Your task to perform on an android device: clear history in the chrome app Image 0: 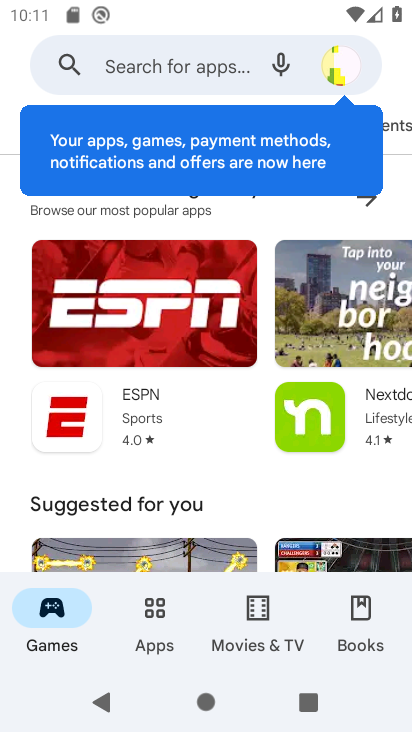
Step 0: press home button
Your task to perform on an android device: clear history in the chrome app Image 1: 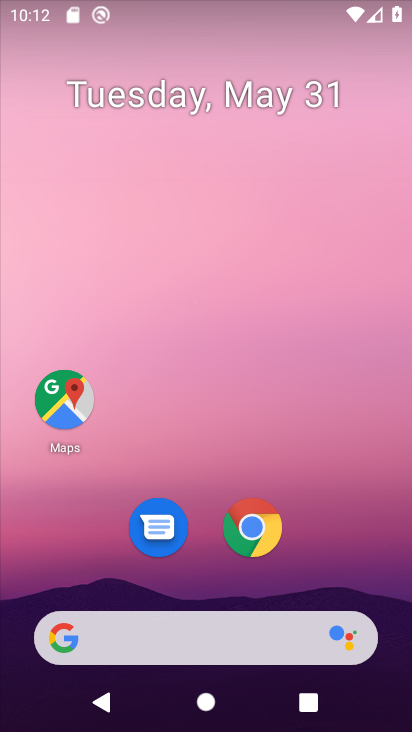
Step 1: click (249, 531)
Your task to perform on an android device: clear history in the chrome app Image 2: 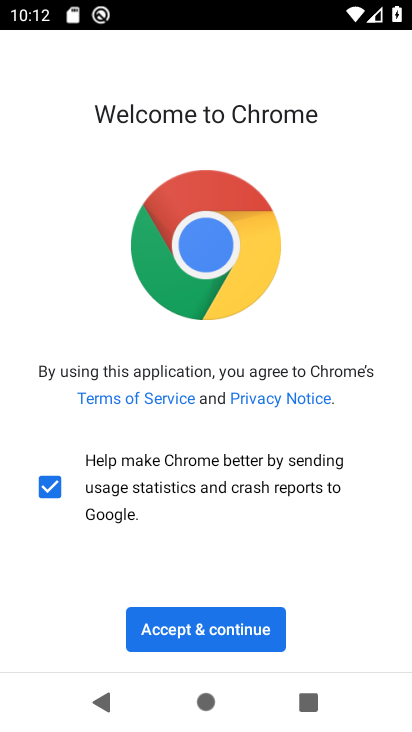
Step 2: click (229, 627)
Your task to perform on an android device: clear history in the chrome app Image 3: 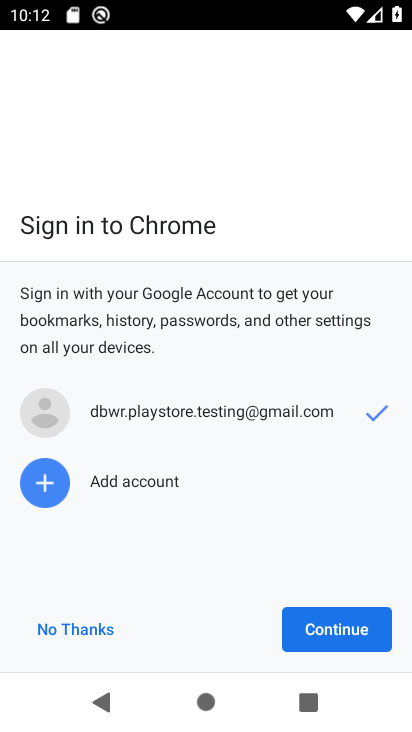
Step 3: click (79, 630)
Your task to perform on an android device: clear history in the chrome app Image 4: 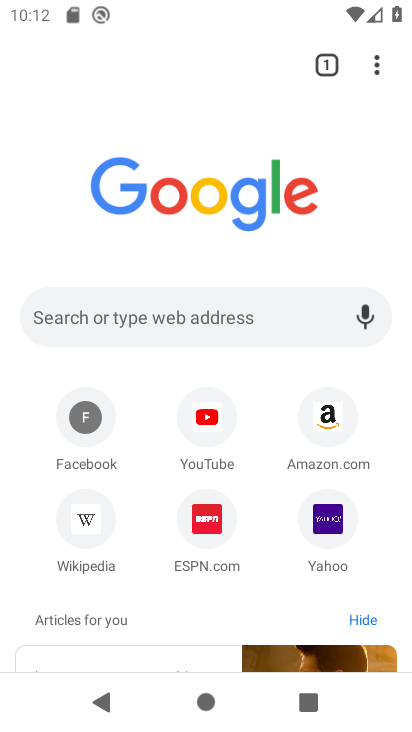
Step 4: click (379, 66)
Your task to perform on an android device: clear history in the chrome app Image 5: 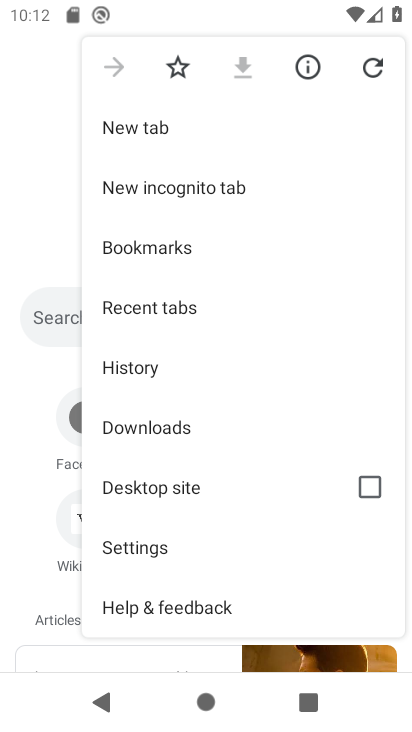
Step 5: click (160, 547)
Your task to perform on an android device: clear history in the chrome app Image 6: 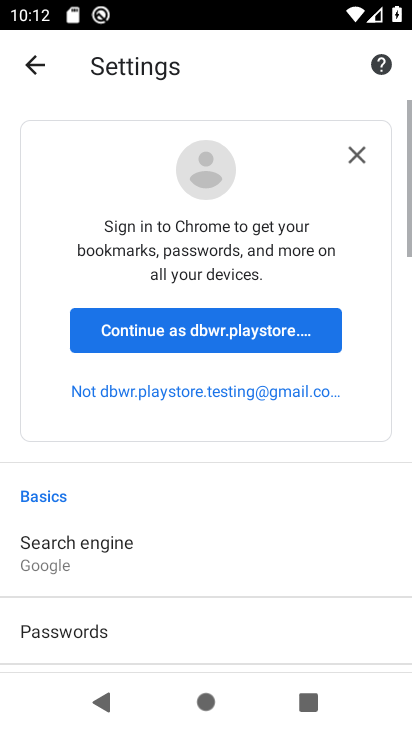
Step 6: drag from (160, 547) to (163, 120)
Your task to perform on an android device: clear history in the chrome app Image 7: 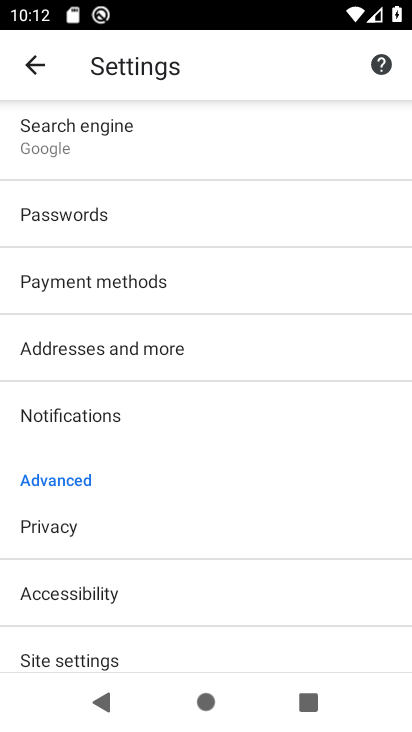
Step 7: drag from (158, 520) to (173, 275)
Your task to perform on an android device: clear history in the chrome app Image 8: 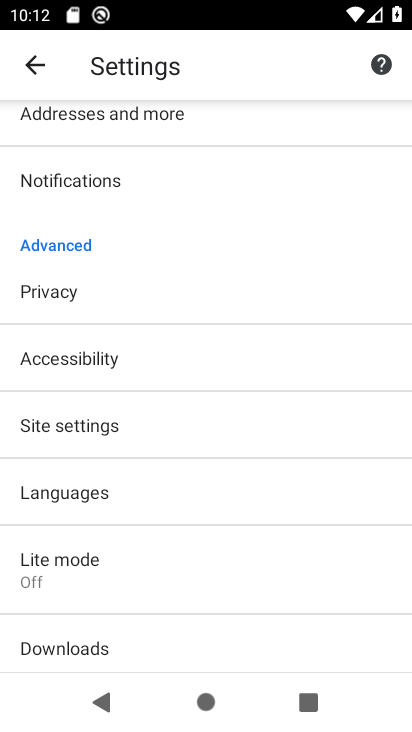
Step 8: click (44, 293)
Your task to perform on an android device: clear history in the chrome app Image 9: 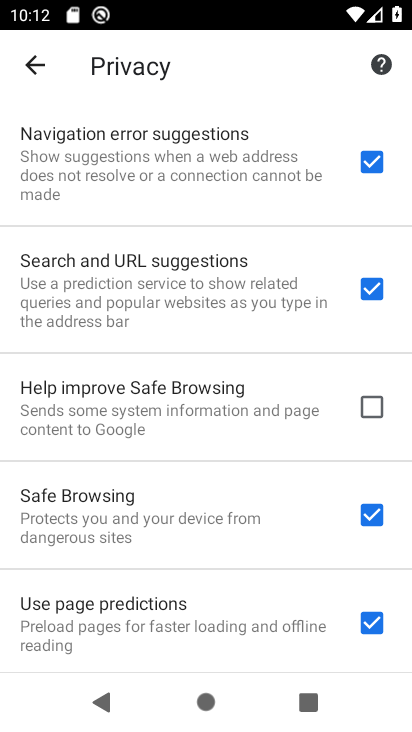
Step 9: drag from (166, 556) to (156, 214)
Your task to perform on an android device: clear history in the chrome app Image 10: 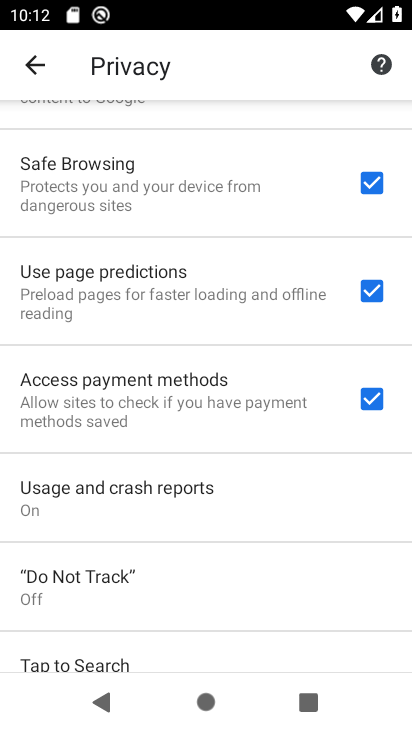
Step 10: drag from (152, 529) to (159, 150)
Your task to perform on an android device: clear history in the chrome app Image 11: 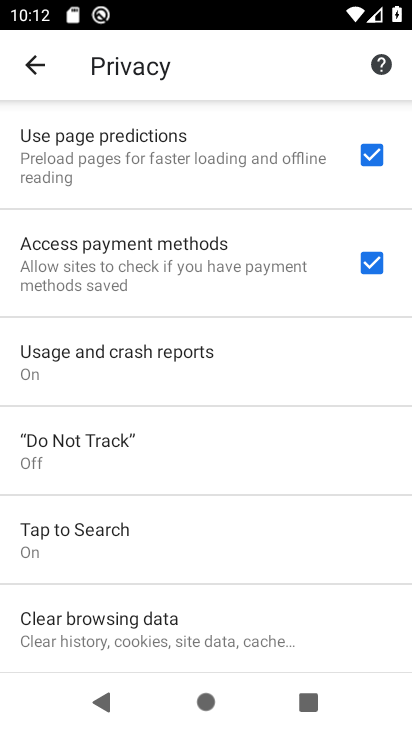
Step 11: click (112, 637)
Your task to perform on an android device: clear history in the chrome app Image 12: 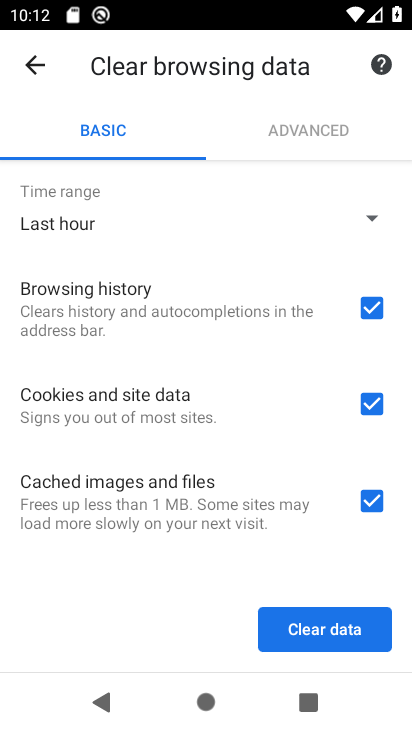
Step 12: click (366, 398)
Your task to perform on an android device: clear history in the chrome app Image 13: 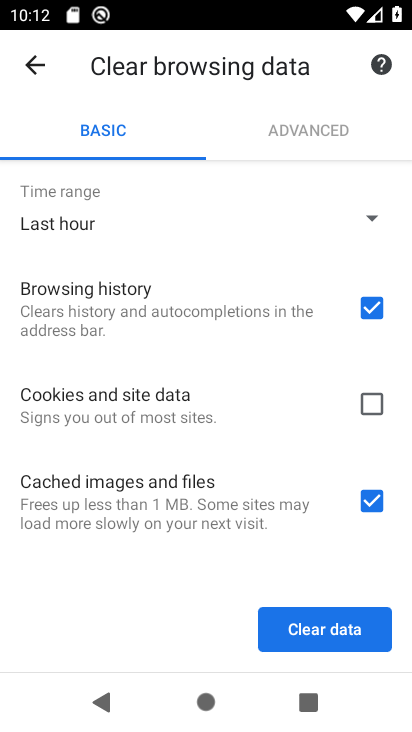
Step 13: click (359, 505)
Your task to perform on an android device: clear history in the chrome app Image 14: 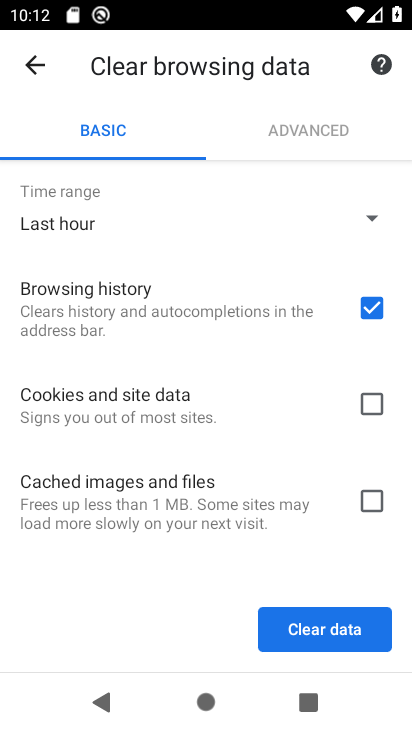
Step 14: click (312, 629)
Your task to perform on an android device: clear history in the chrome app Image 15: 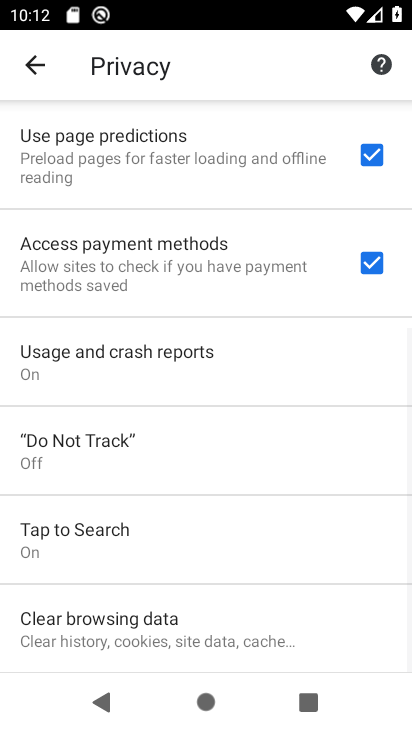
Step 15: task complete